Your task to perform on an android device: When is my next appointment? Image 0: 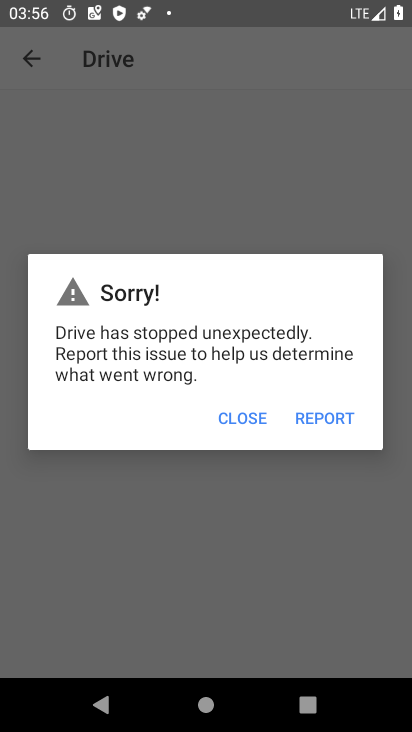
Step 0: press home button
Your task to perform on an android device: When is my next appointment? Image 1: 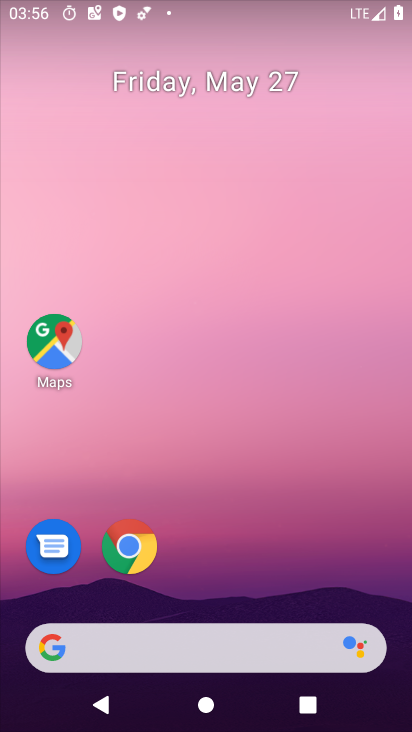
Step 1: drag from (385, 432) to (356, 164)
Your task to perform on an android device: When is my next appointment? Image 2: 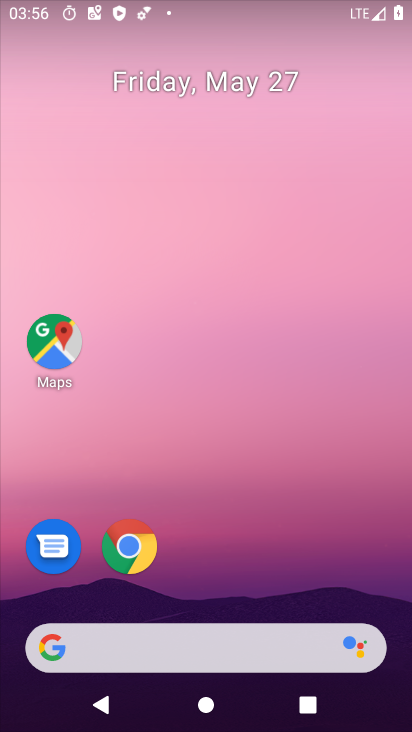
Step 2: drag from (406, 582) to (359, 151)
Your task to perform on an android device: When is my next appointment? Image 3: 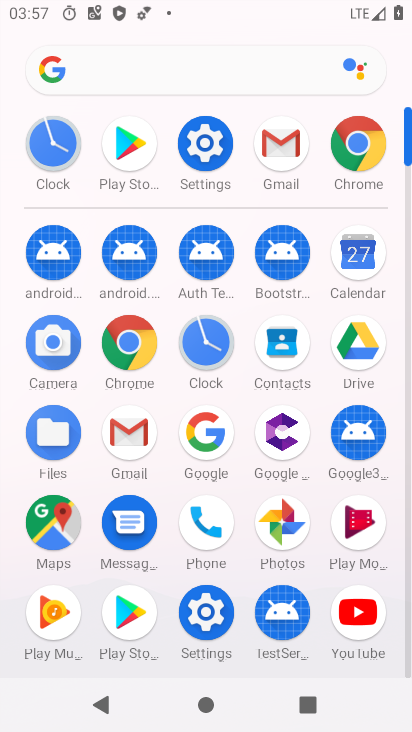
Step 3: click (340, 258)
Your task to perform on an android device: When is my next appointment? Image 4: 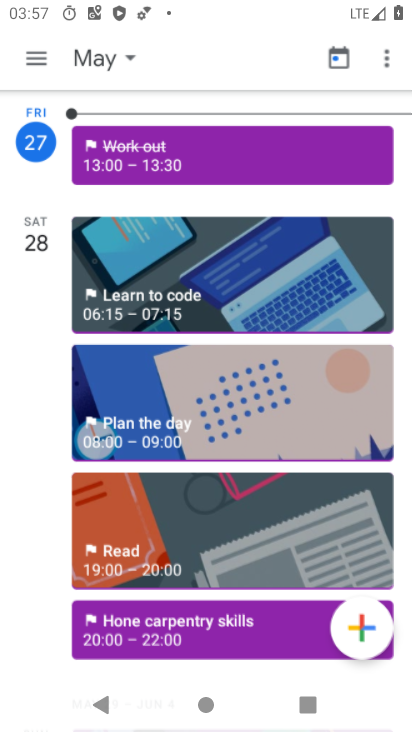
Step 4: click (27, 54)
Your task to perform on an android device: When is my next appointment? Image 5: 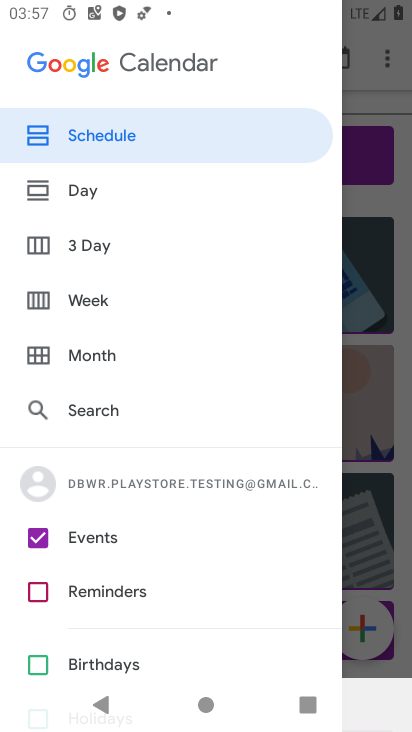
Step 5: drag from (212, 610) to (216, 228)
Your task to perform on an android device: When is my next appointment? Image 6: 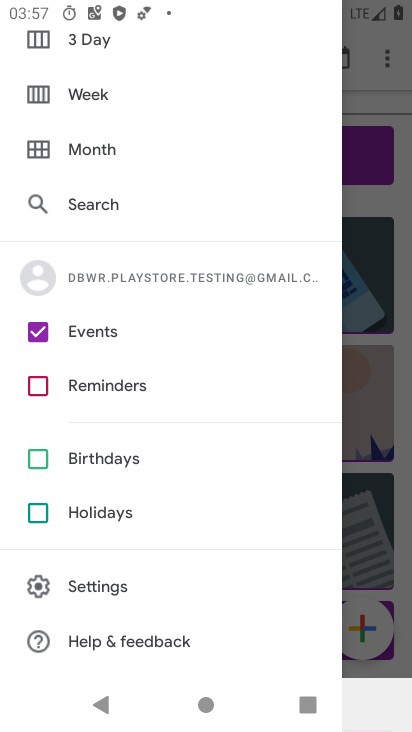
Step 6: drag from (217, 102) to (219, 387)
Your task to perform on an android device: When is my next appointment? Image 7: 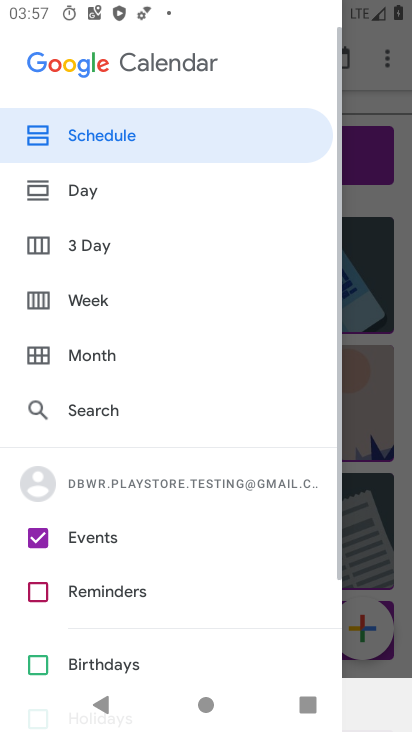
Step 7: click (50, 133)
Your task to perform on an android device: When is my next appointment? Image 8: 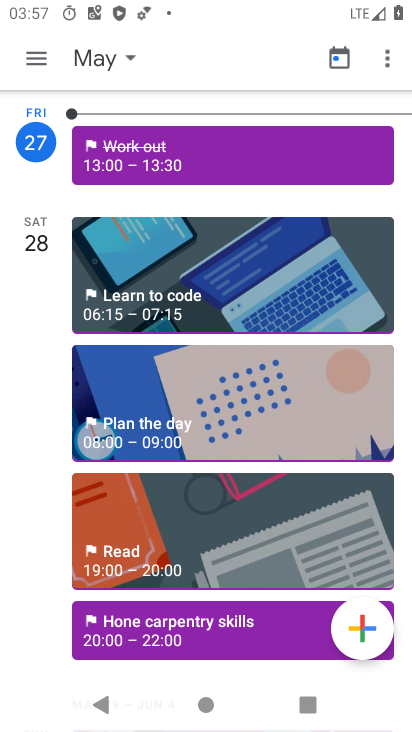
Step 8: task complete